Your task to perform on an android device: open wifi settings Image 0: 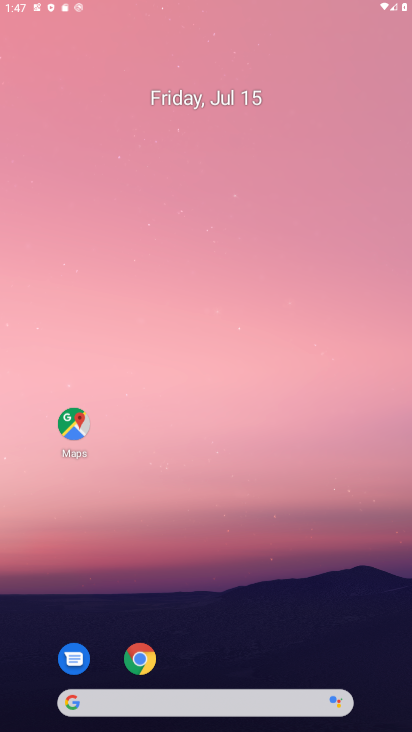
Step 0: click (131, 650)
Your task to perform on an android device: open wifi settings Image 1: 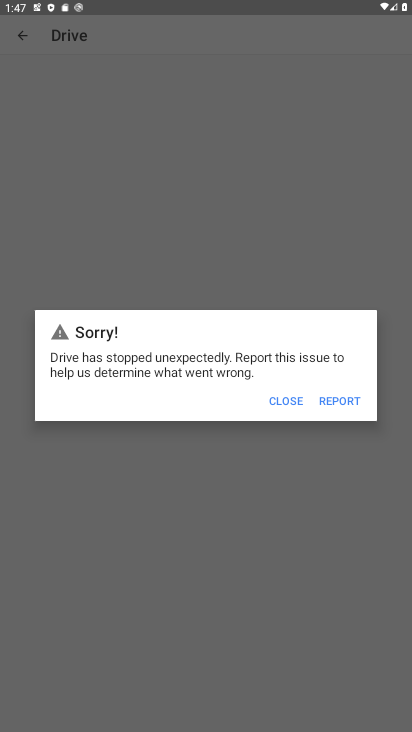
Step 1: press home button
Your task to perform on an android device: open wifi settings Image 2: 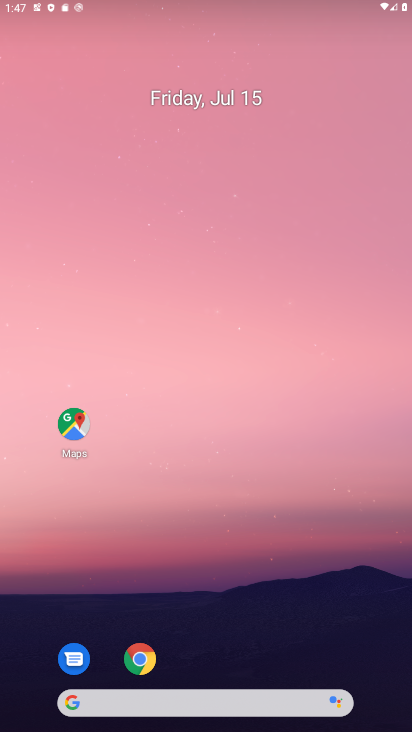
Step 2: drag from (162, 648) to (194, 191)
Your task to perform on an android device: open wifi settings Image 3: 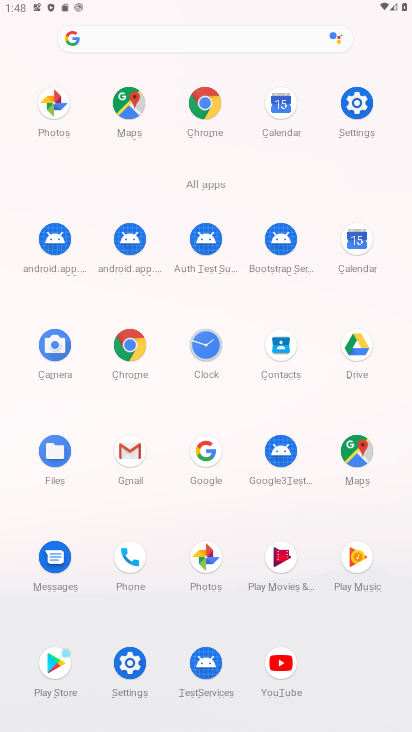
Step 3: click (351, 92)
Your task to perform on an android device: open wifi settings Image 4: 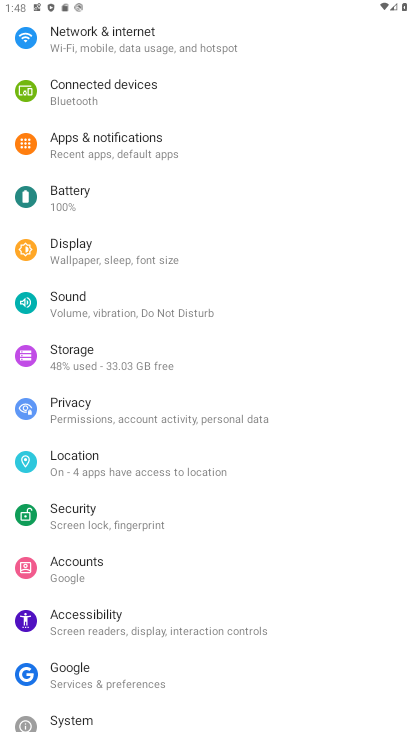
Step 4: click (133, 54)
Your task to perform on an android device: open wifi settings Image 5: 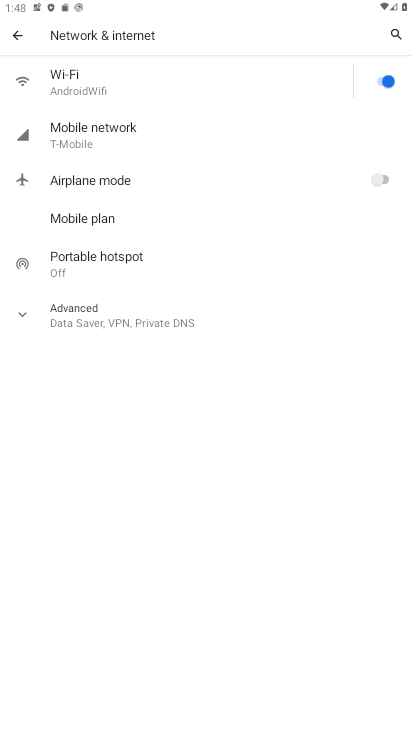
Step 5: click (246, 89)
Your task to perform on an android device: open wifi settings Image 6: 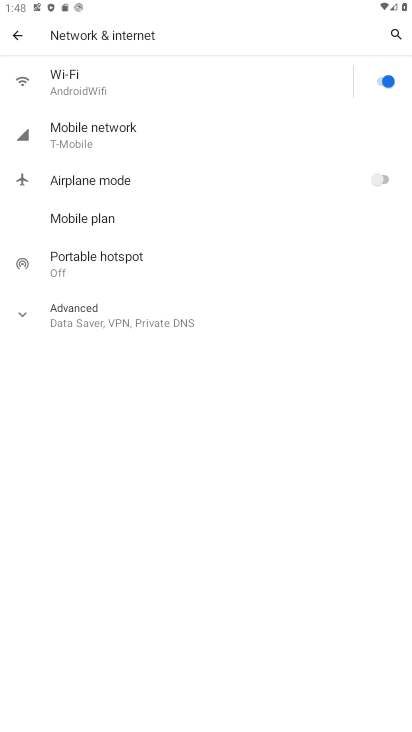
Step 6: task complete